Your task to perform on an android device: What is the news today? Image 0: 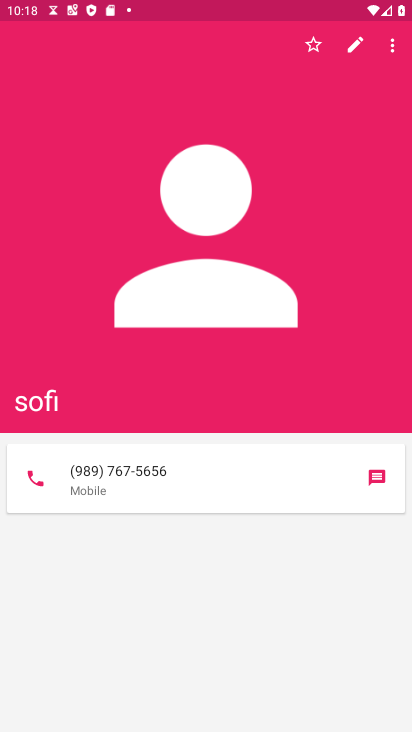
Step 0: press home button
Your task to perform on an android device: What is the news today? Image 1: 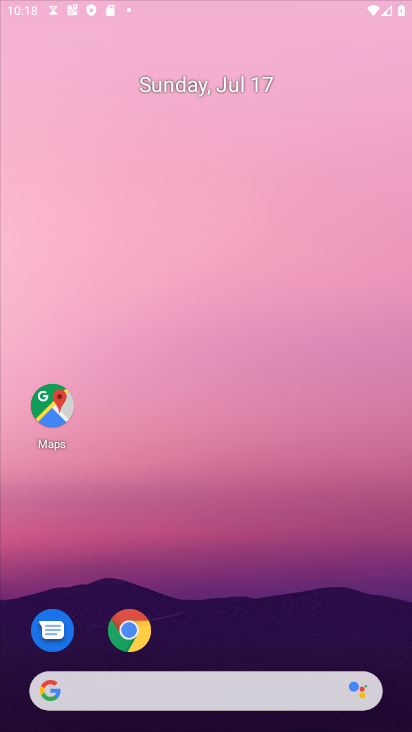
Step 1: drag from (183, 709) to (337, 18)
Your task to perform on an android device: What is the news today? Image 2: 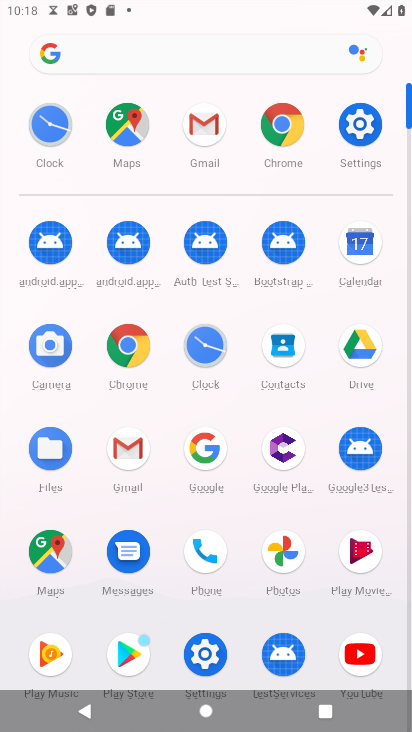
Step 2: click (142, 340)
Your task to perform on an android device: What is the news today? Image 3: 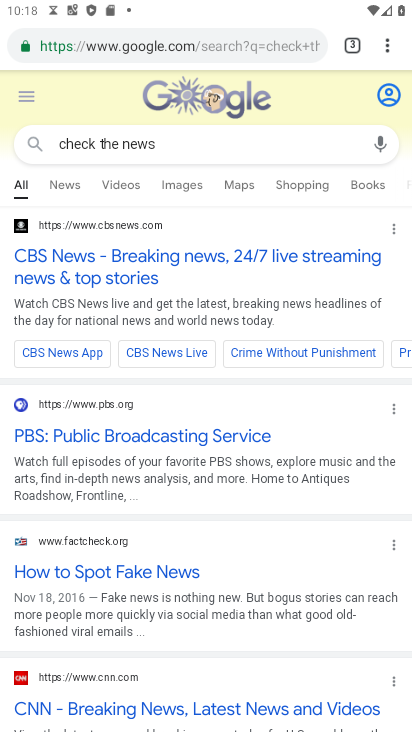
Step 3: click (210, 48)
Your task to perform on an android device: What is the news today? Image 4: 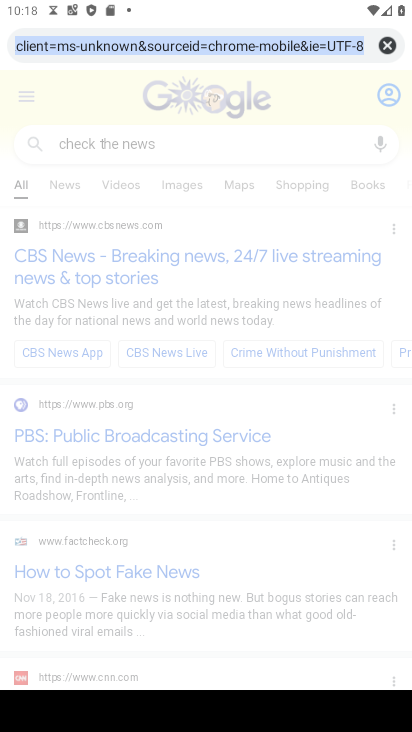
Step 4: type "what is news today"
Your task to perform on an android device: What is the news today? Image 5: 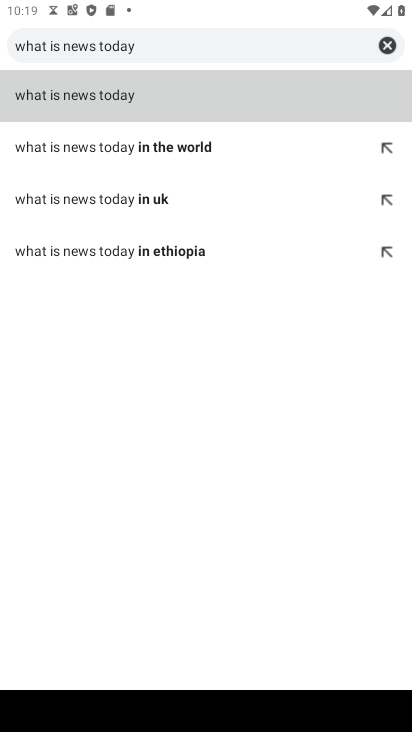
Step 5: click (162, 104)
Your task to perform on an android device: What is the news today? Image 6: 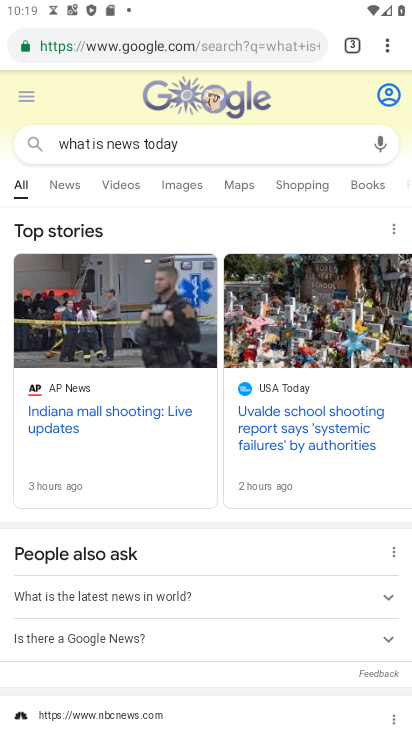
Step 6: task complete